Your task to perform on an android device: Check the settings for the Facebook app Image 0: 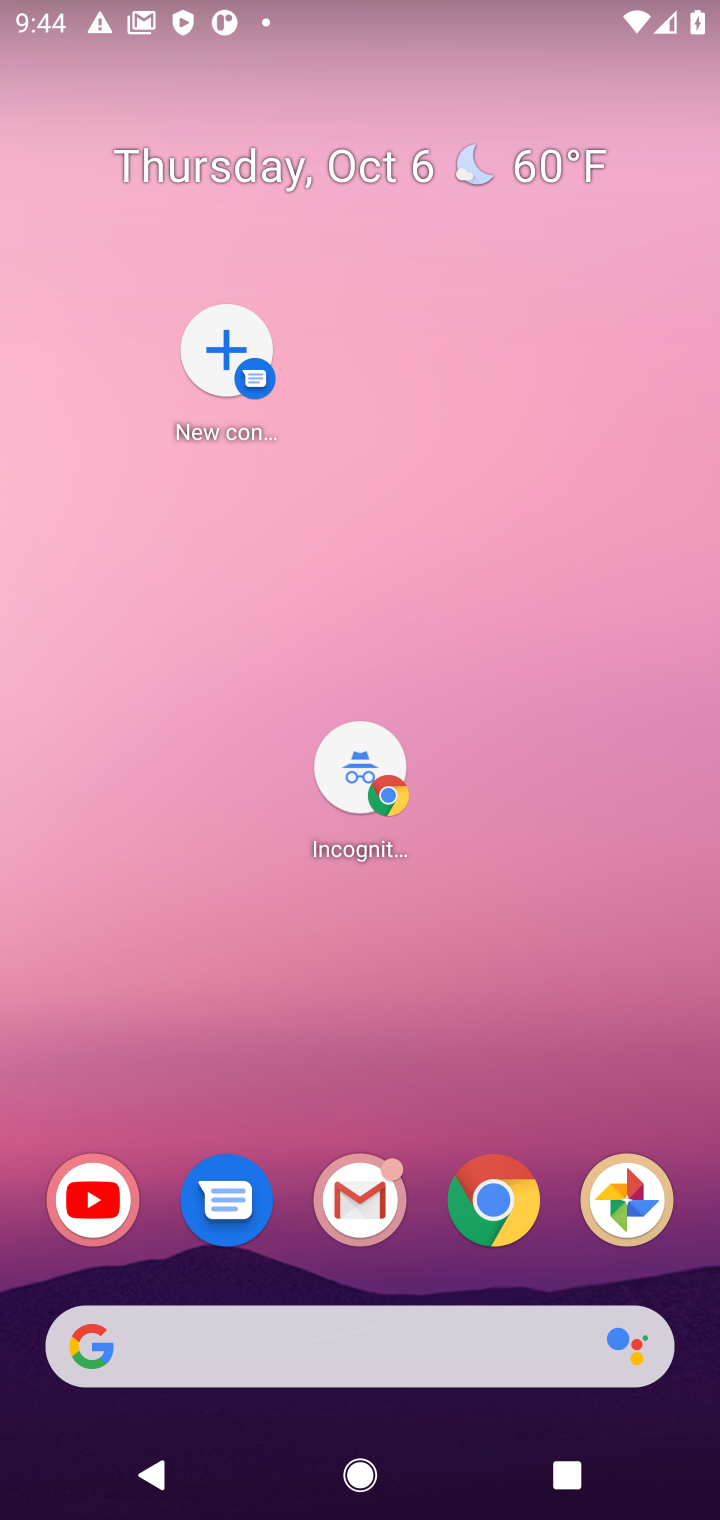
Step 0: drag from (346, 1021) to (424, 658)
Your task to perform on an android device: Check the settings for the Facebook app Image 1: 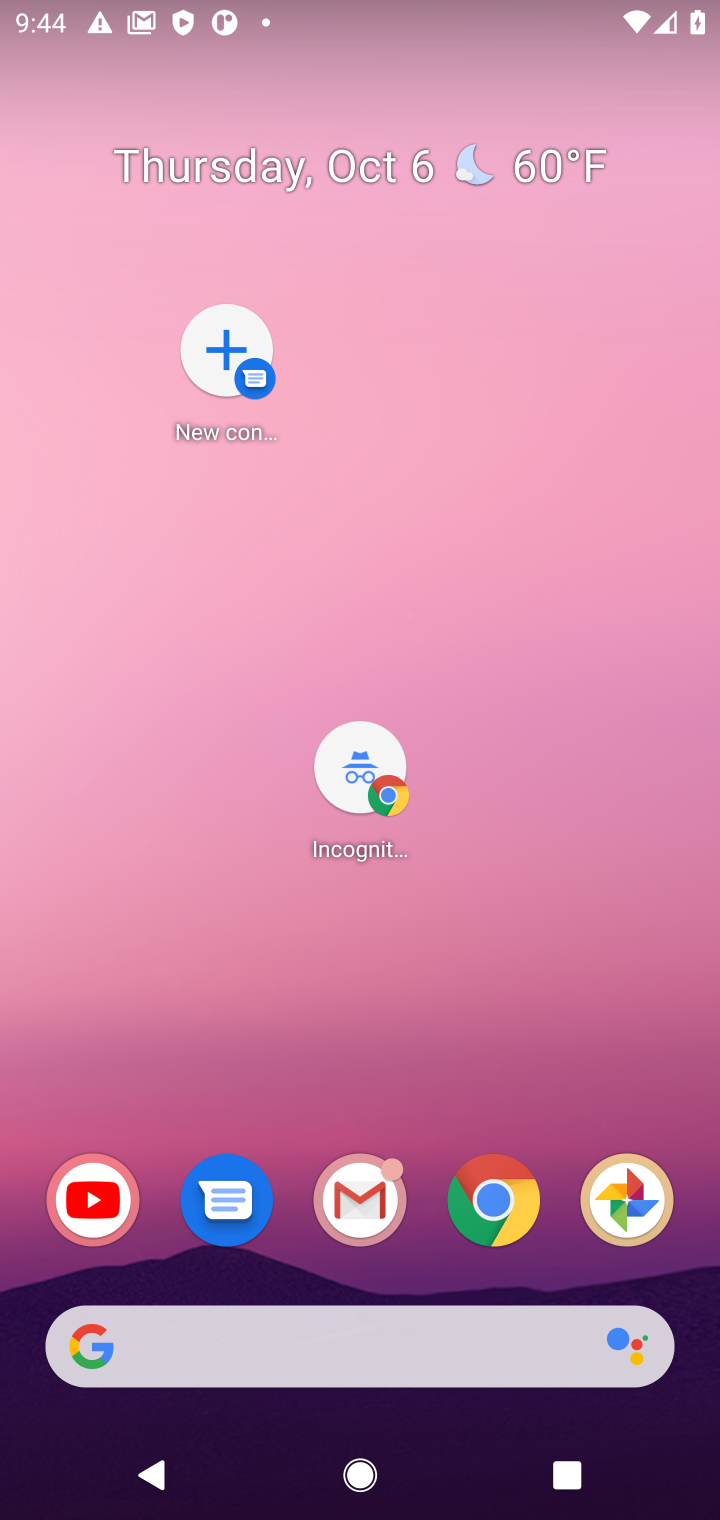
Step 1: task complete